Your task to perform on an android device: search for starred emails in the gmail app Image 0: 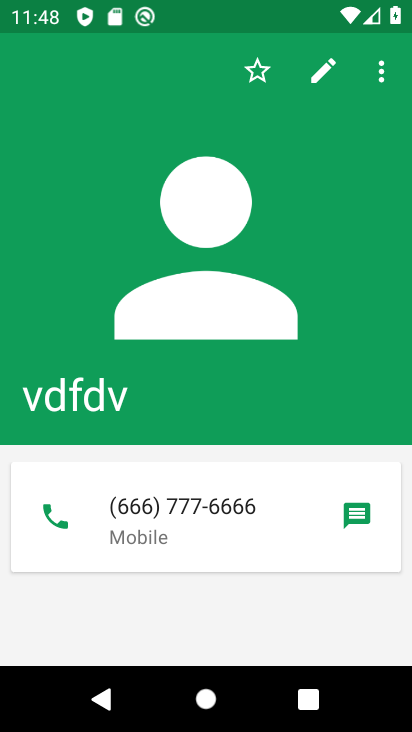
Step 0: press home button
Your task to perform on an android device: search for starred emails in the gmail app Image 1: 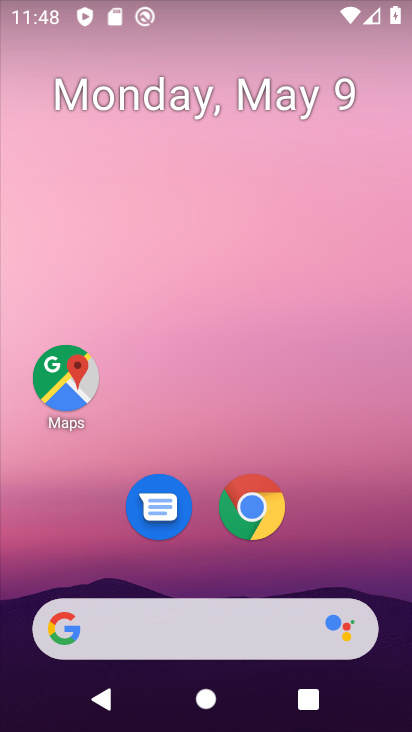
Step 1: drag from (300, 431) to (283, 50)
Your task to perform on an android device: search for starred emails in the gmail app Image 2: 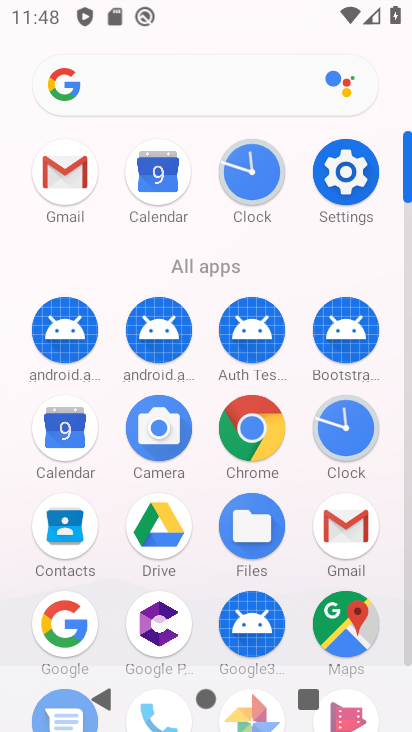
Step 2: click (330, 514)
Your task to perform on an android device: search for starred emails in the gmail app Image 3: 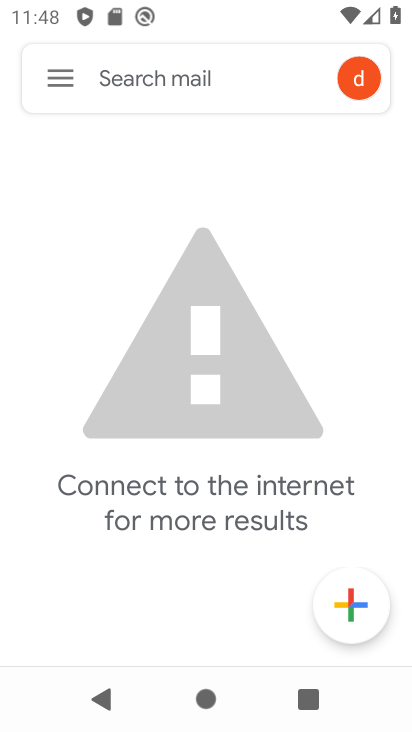
Step 3: click (60, 70)
Your task to perform on an android device: search for starred emails in the gmail app Image 4: 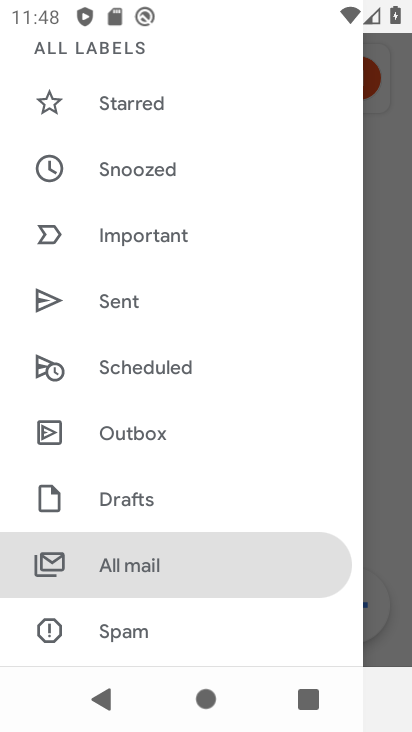
Step 4: click (138, 113)
Your task to perform on an android device: search for starred emails in the gmail app Image 5: 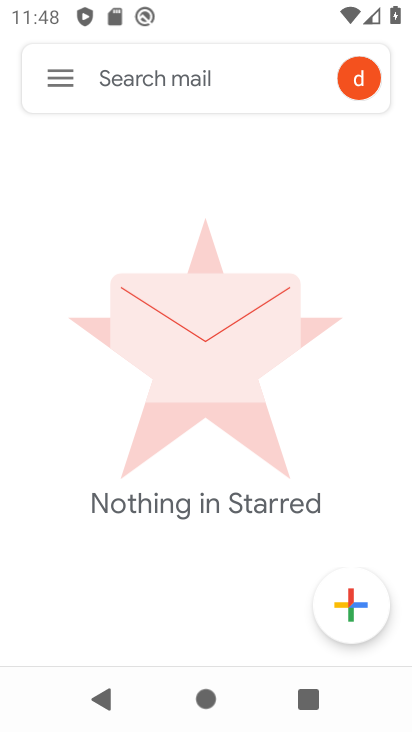
Step 5: task complete